Your task to perform on an android device: Open battery settings Image 0: 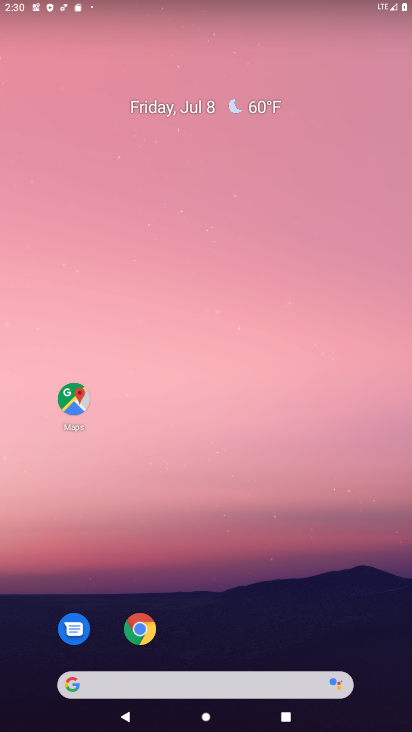
Step 0: drag from (224, 639) to (215, 278)
Your task to perform on an android device: Open battery settings Image 1: 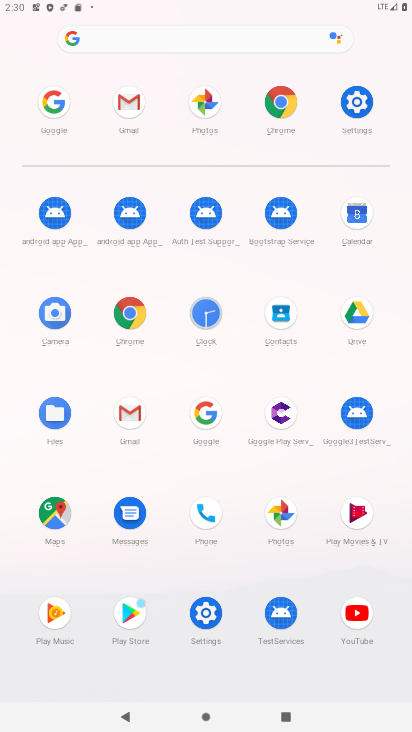
Step 1: click (354, 100)
Your task to perform on an android device: Open battery settings Image 2: 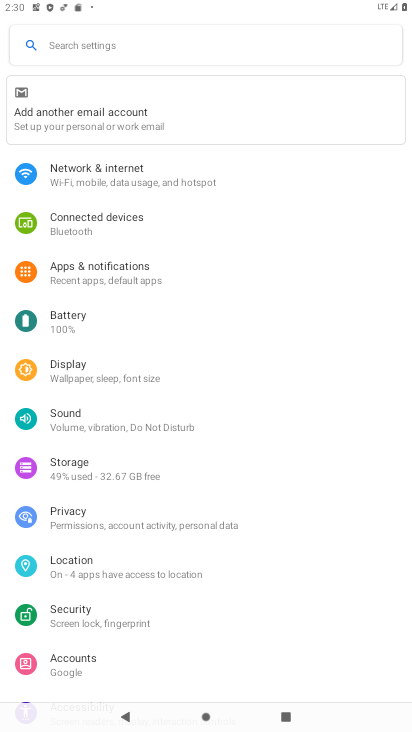
Step 2: click (127, 315)
Your task to perform on an android device: Open battery settings Image 3: 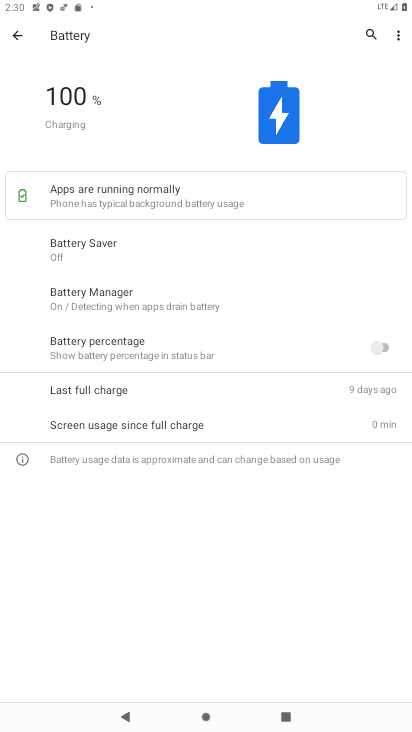
Step 3: task complete